Your task to perform on an android device: Open Google Maps Image 0: 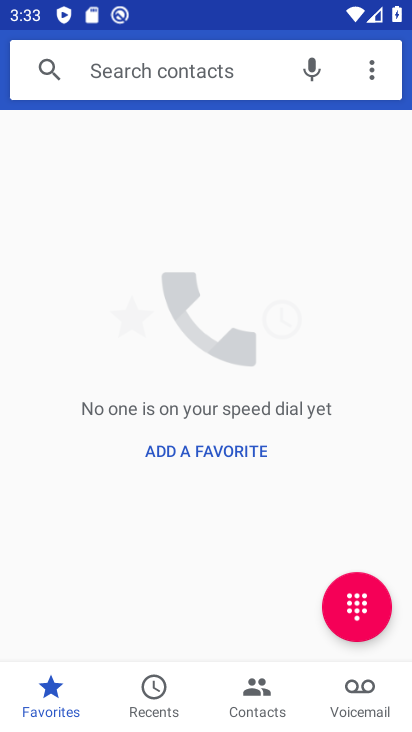
Step 0: press home button
Your task to perform on an android device: Open Google Maps Image 1: 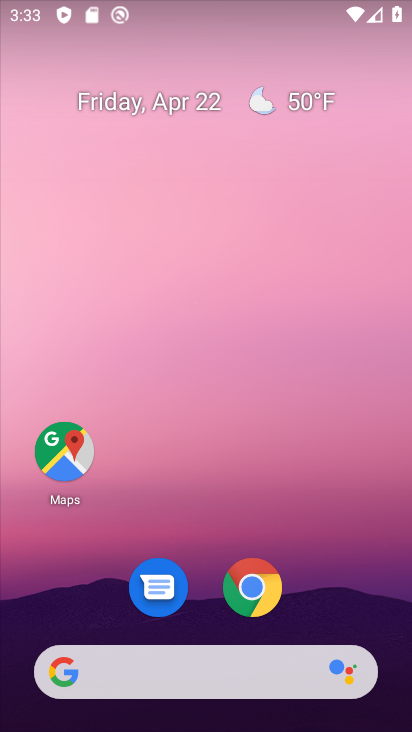
Step 1: click (67, 460)
Your task to perform on an android device: Open Google Maps Image 2: 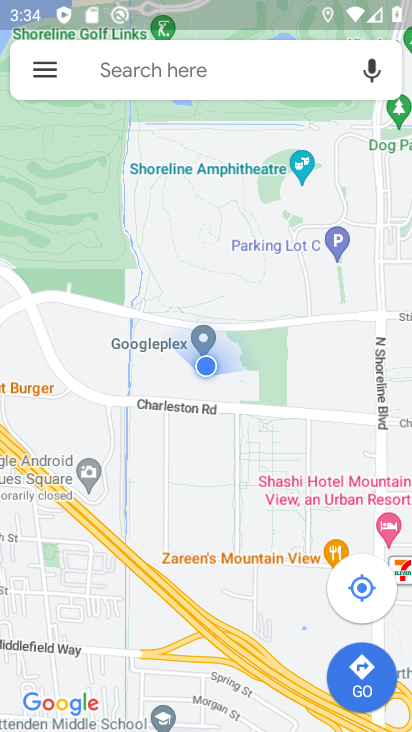
Step 2: task complete